Your task to perform on an android device: change text size in settings app Image 0: 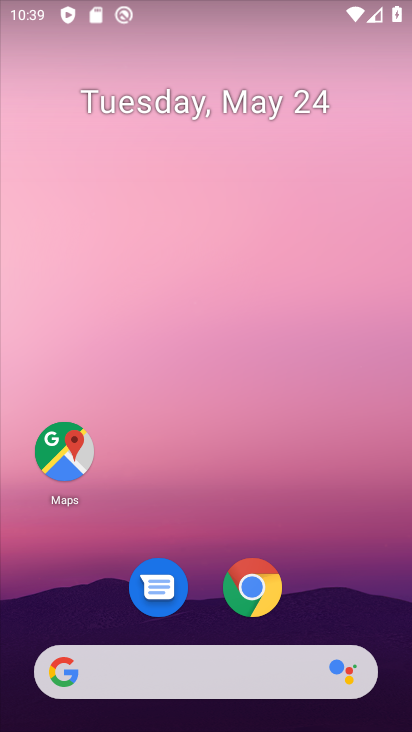
Step 0: drag from (336, 604) to (259, 38)
Your task to perform on an android device: change text size in settings app Image 1: 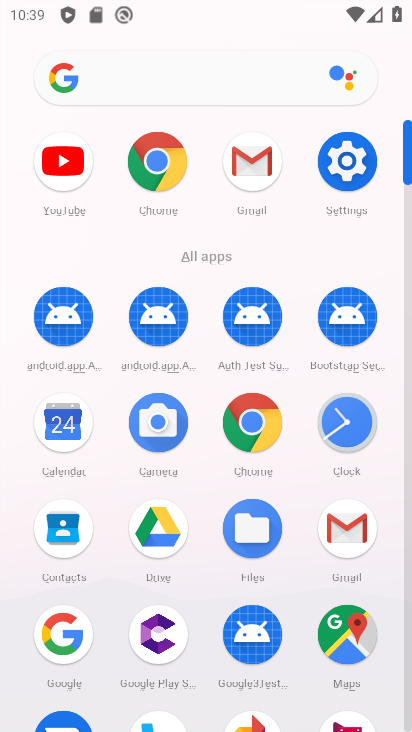
Step 1: drag from (19, 617) to (17, 284)
Your task to perform on an android device: change text size in settings app Image 2: 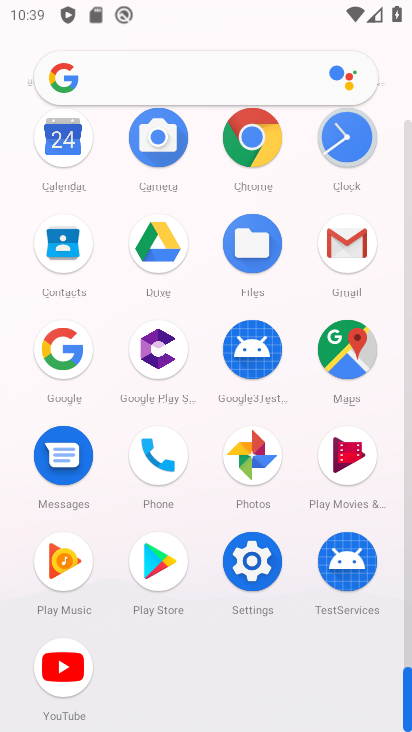
Step 2: click (249, 558)
Your task to perform on an android device: change text size in settings app Image 3: 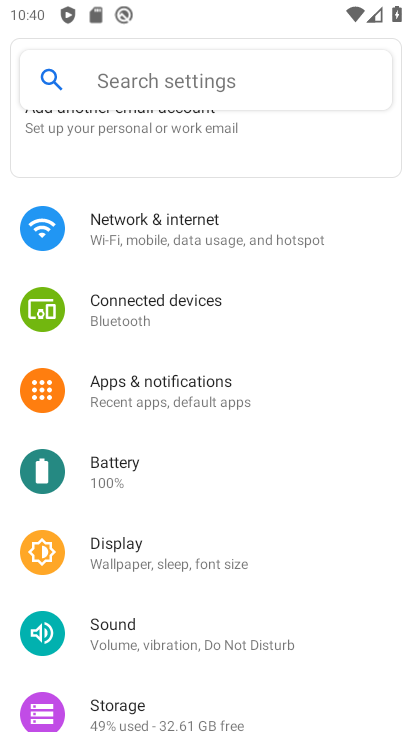
Step 3: click (196, 560)
Your task to perform on an android device: change text size in settings app Image 4: 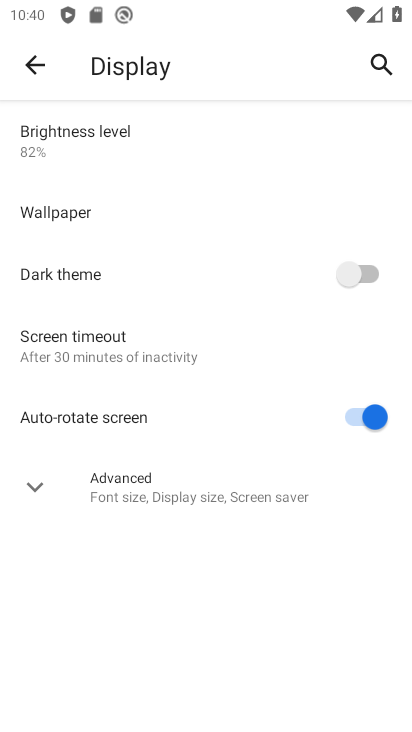
Step 4: click (87, 492)
Your task to perform on an android device: change text size in settings app Image 5: 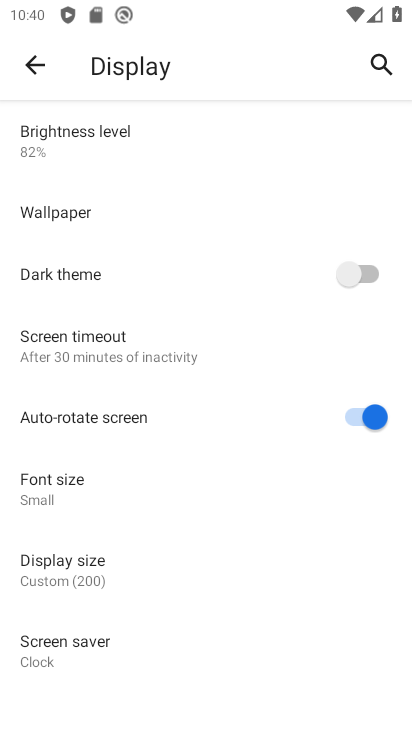
Step 5: drag from (210, 628) to (217, 214)
Your task to perform on an android device: change text size in settings app Image 6: 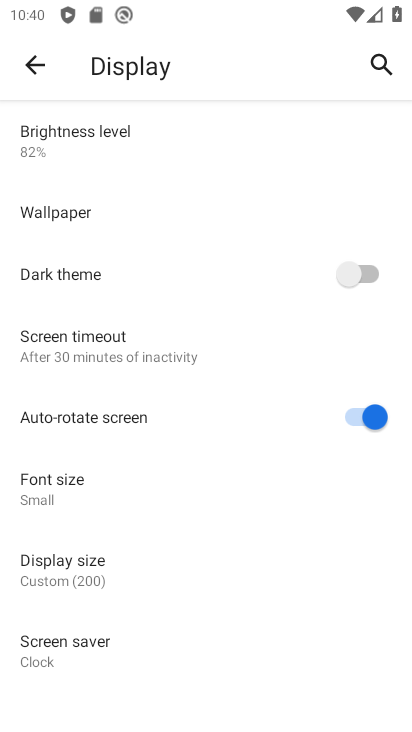
Step 6: click (97, 477)
Your task to perform on an android device: change text size in settings app Image 7: 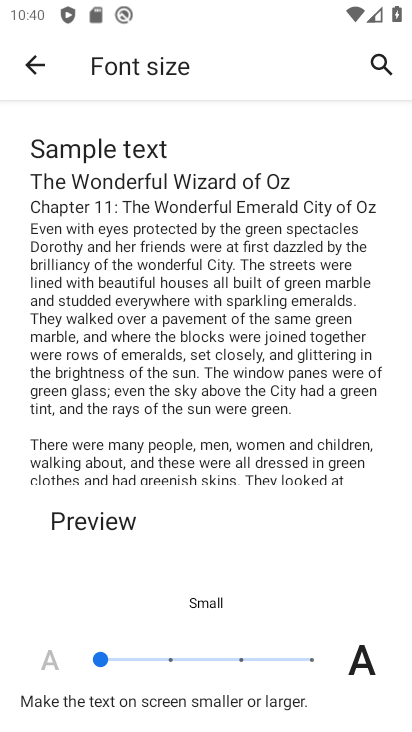
Step 7: click (245, 663)
Your task to perform on an android device: change text size in settings app Image 8: 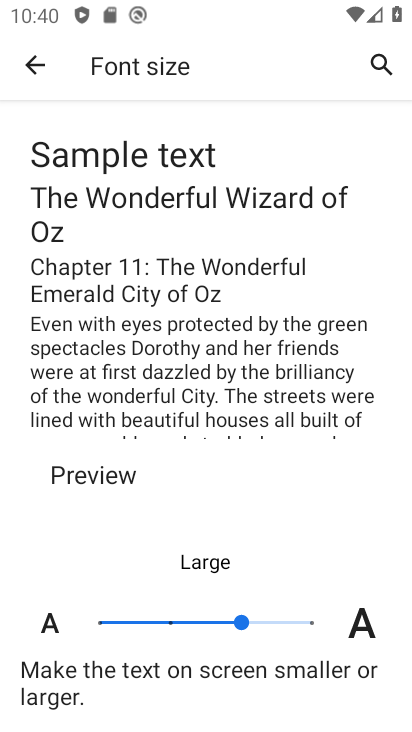
Step 8: task complete